Your task to perform on an android device: Show me the alarms in the clock app Image 0: 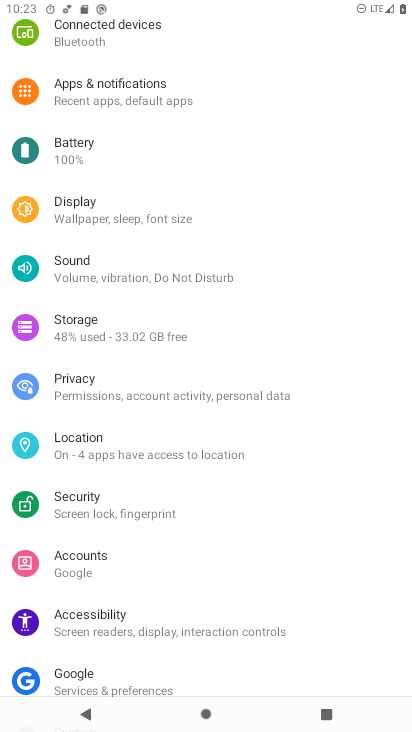
Step 0: press home button
Your task to perform on an android device: Show me the alarms in the clock app Image 1: 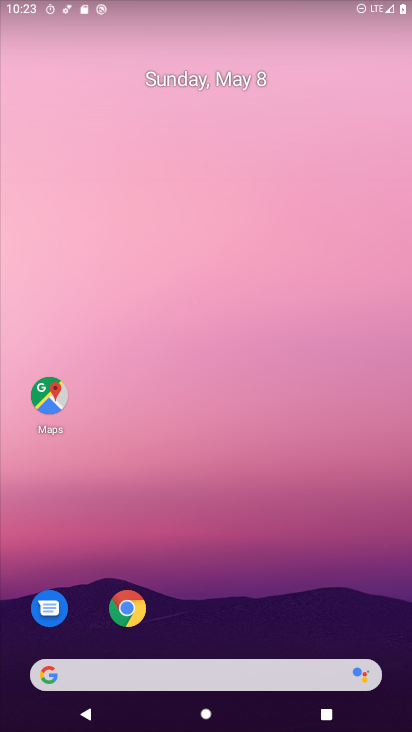
Step 1: drag from (176, 644) to (182, 265)
Your task to perform on an android device: Show me the alarms in the clock app Image 2: 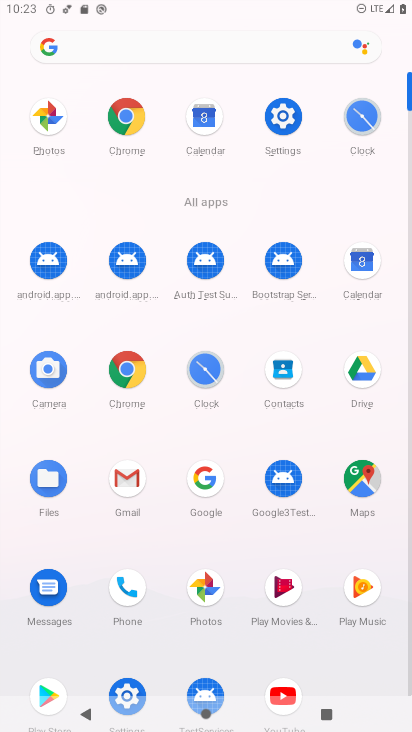
Step 2: click (197, 374)
Your task to perform on an android device: Show me the alarms in the clock app Image 3: 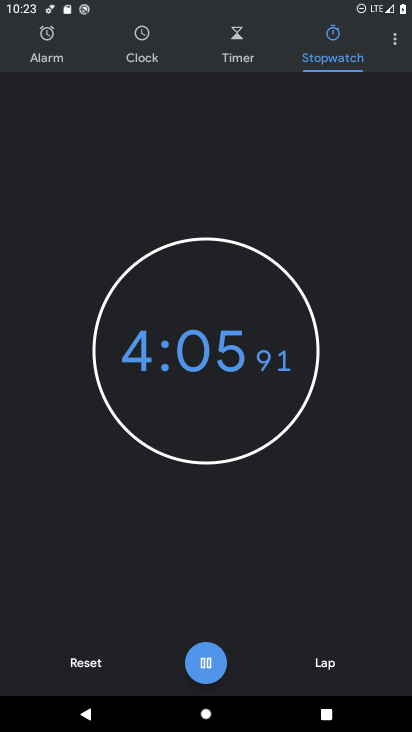
Step 3: click (48, 60)
Your task to perform on an android device: Show me the alarms in the clock app Image 4: 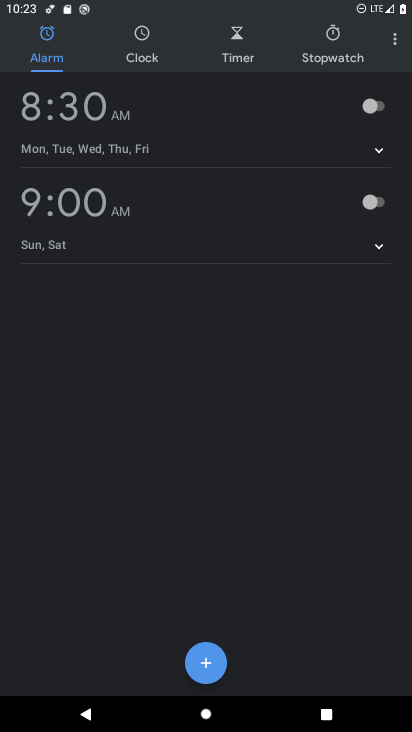
Step 4: task complete